Your task to perform on an android device: Open the stopwatch Image 0: 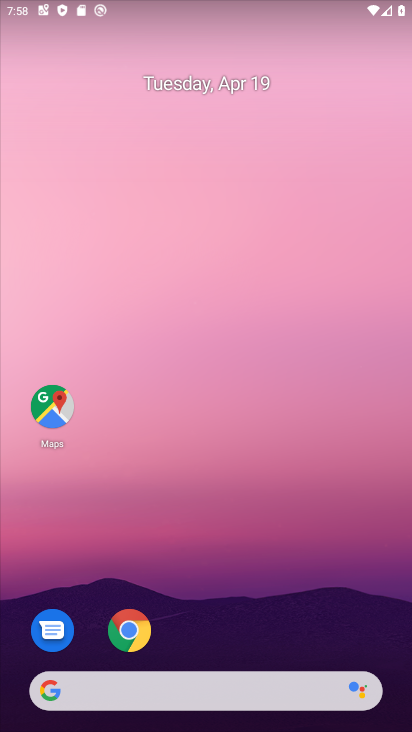
Step 0: drag from (212, 410) to (268, 0)
Your task to perform on an android device: Open the stopwatch Image 1: 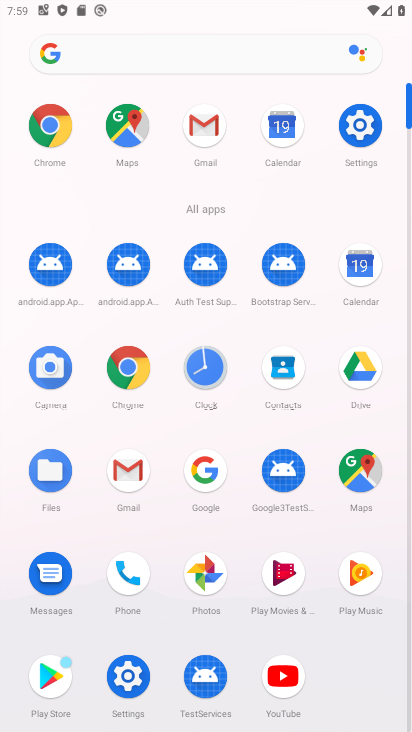
Step 1: click (204, 378)
Your task to perform on an android device: Open the stopwatch Image 2: 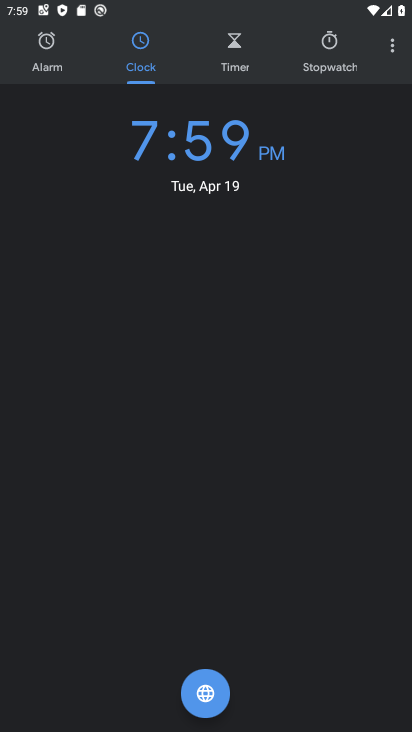
Step 2: click (327, 58)
Your task to perform on an android device: Open the stopwatch Image 3: 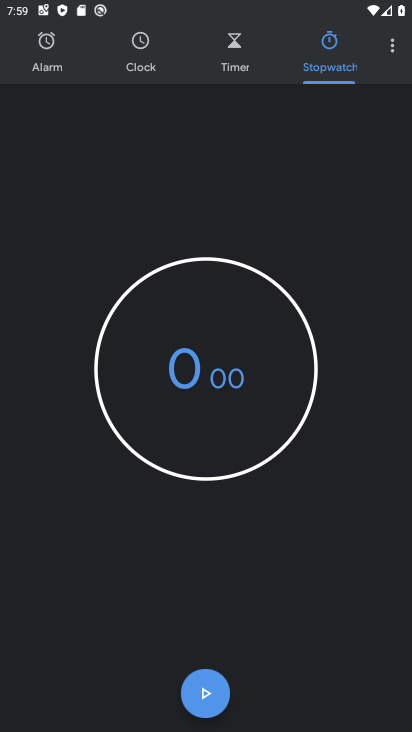
Step 3: task complete